Your task to perform on an android device: change your default location settings in chrome Image 0: 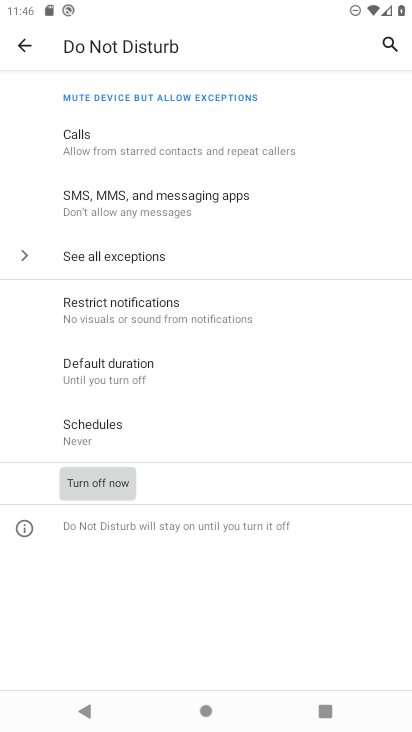
Step 0: press home button
Your task to perform on an android device: change your default location settings in chrome Image 1: 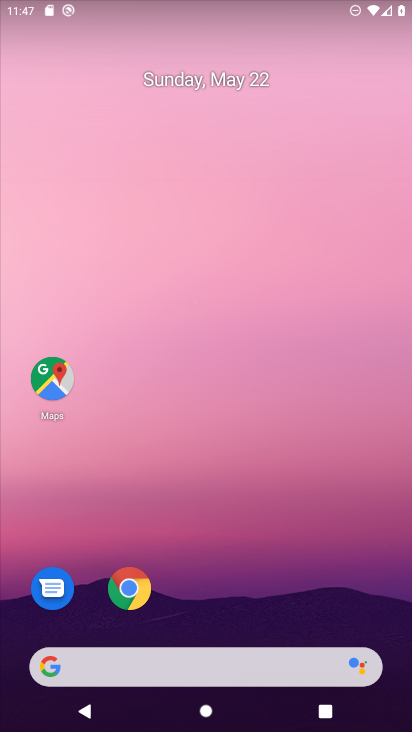
Step 1: drag from (259, 694) to (219, 255)
Your task to perform on an android device: change your default location settings in chrome Image 2: 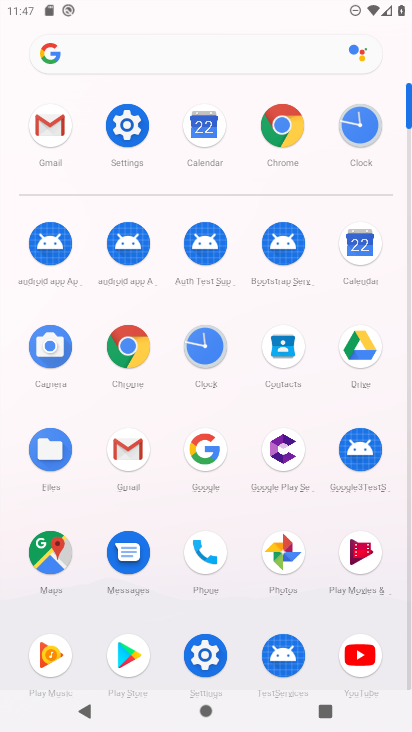
Step 2: click (135, 345)
Your task to perform on an android device: change your default location settings in chrome Image 3: 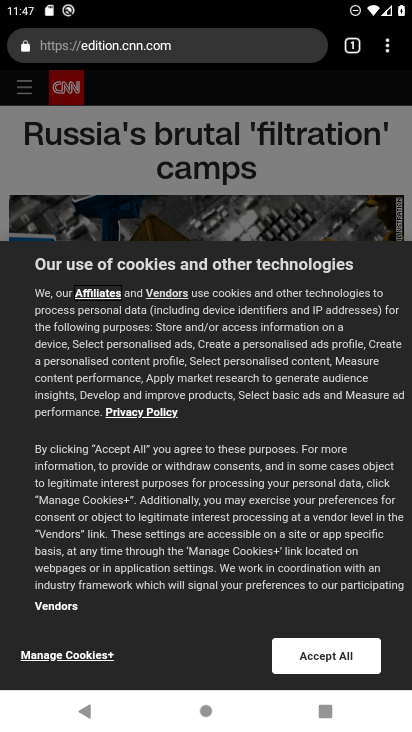
Step 3: drag from (296, 570) to (240, 375)
Your task to perform on an android device: change your default location settings in chrome Image 4: 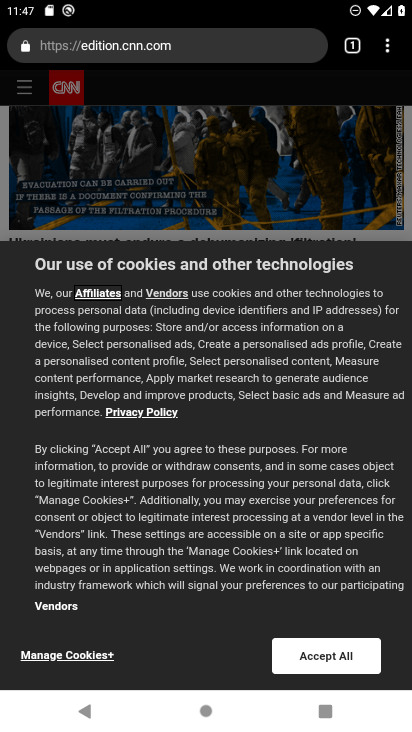
Step 4: click (329, 663)
Your task to perform on an android device: change your default location settings in chrome Image 5: 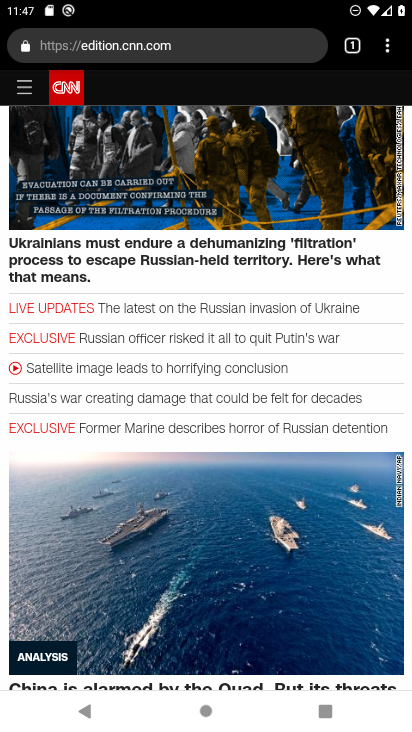
Step 5: click (380, 54)
Your task to perform on an android device: change your default location settings in chrome Image 6: 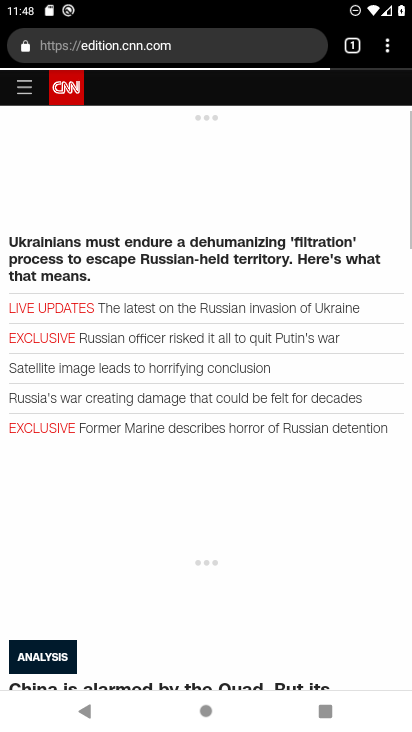
Step 6: click (380, 48)
Your task to perform on an android device: change your default location settings in chrome Image 7: 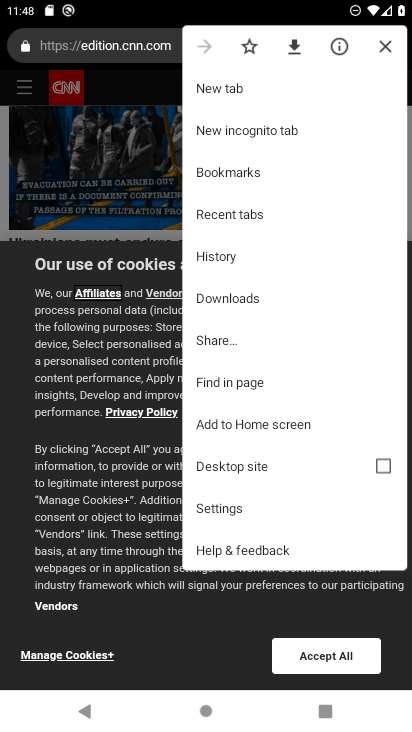
Step 7: click (225, 512)
Your task to perform on an android device: change your default location settings in chrome Image 8: 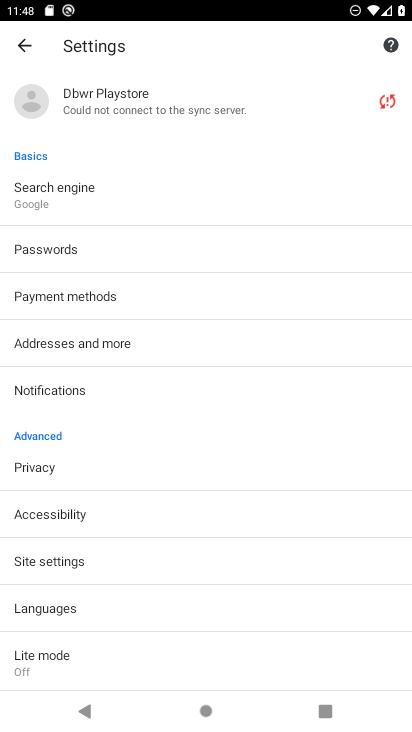
Step 8: click (65, 566)
Your task to perform on an android device: change your default location settings in chrome Image 9: 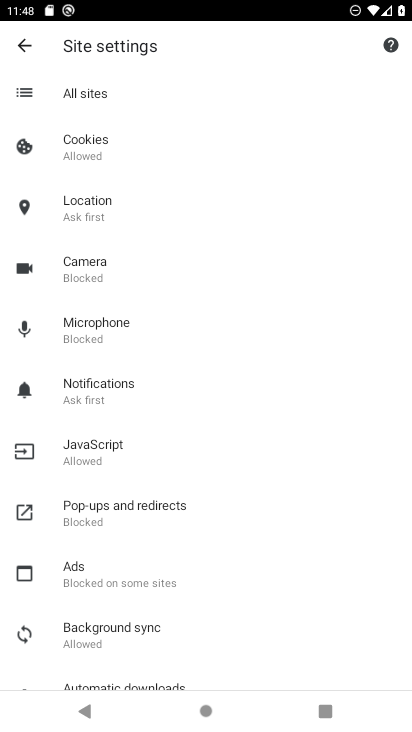
Step 9: click (101, 212)
Your task to perform on an android device: change your default location settings in chrome Image 10: 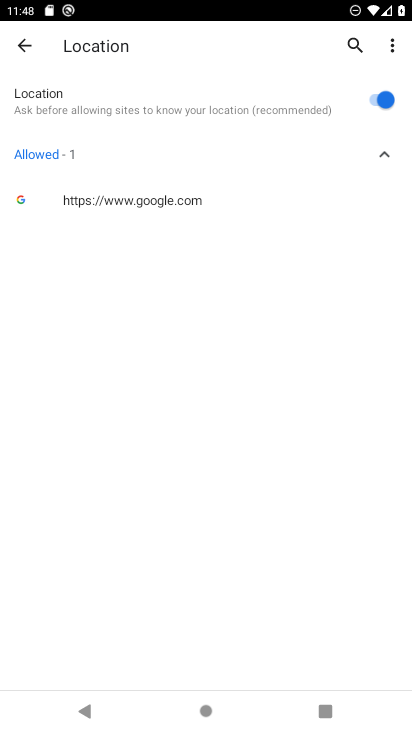
Step 10: task complete